Your task to perform on an android device: open app "AliExpress" (install if not already installed) Image 0: 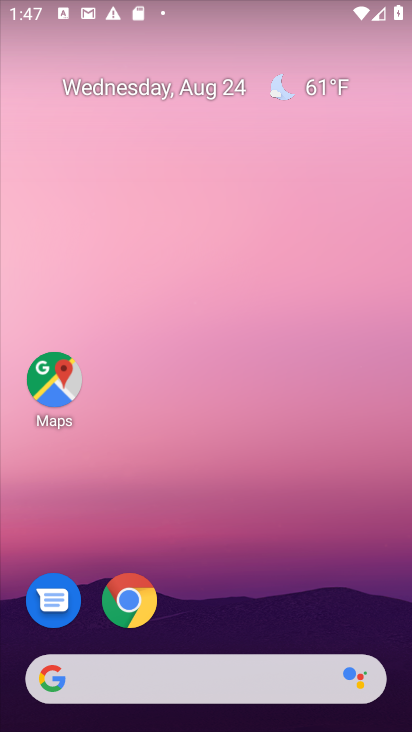
Step 0: drag from (255, 617) to (262, 81)
Your task to perform on an android device: open app "AliExpress" (install if not already installed) Image 1: 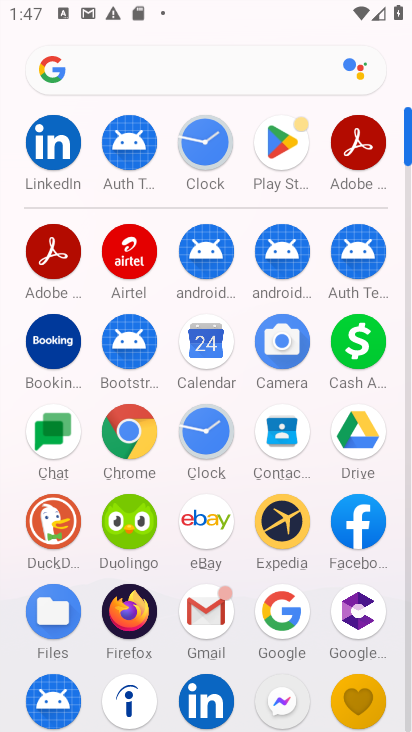
Step 1: click (279, 140)
Your task to perform on an android device: open app "AliExpress" (install if not already installed) Image 2: 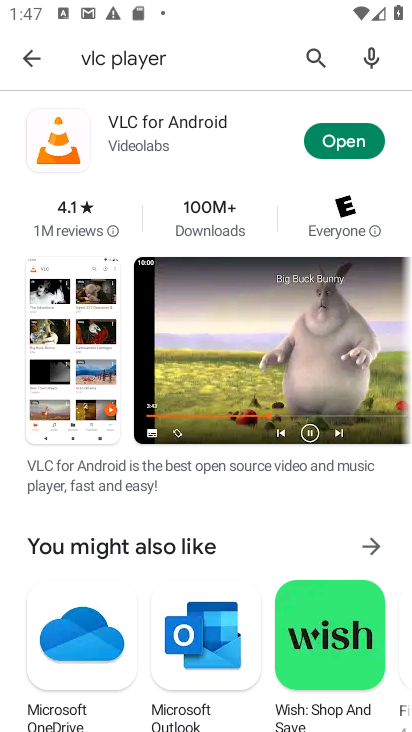
Step 2: click (311, 65)
Your task to perform on an android device: open app "AliExpress" (install if not already installed) Image 3: 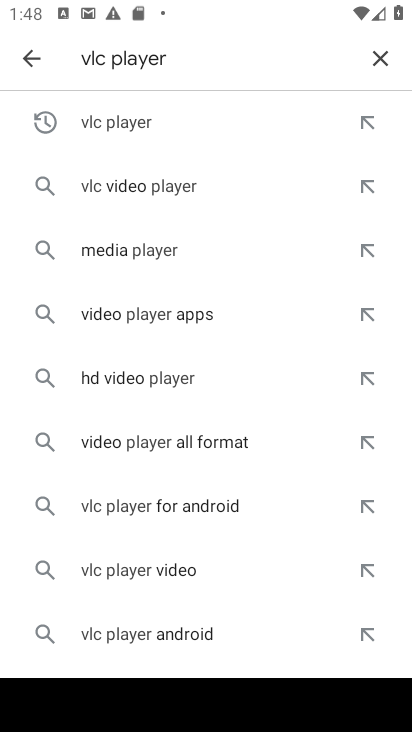
Step 3: click (379, 69)
Your task to perform on an android device: open app "AliExpress" (install if not already installed) Image 4: 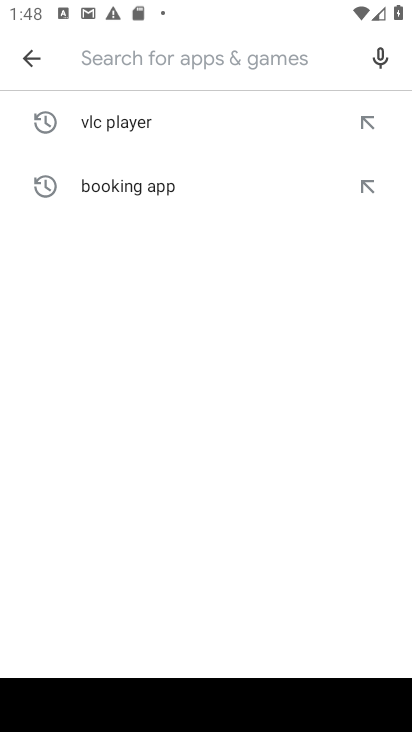
Step 4: type "aliExpress"
Your task to perform on an android device: open app "AliExpress" (install if not already installed) Image 5: 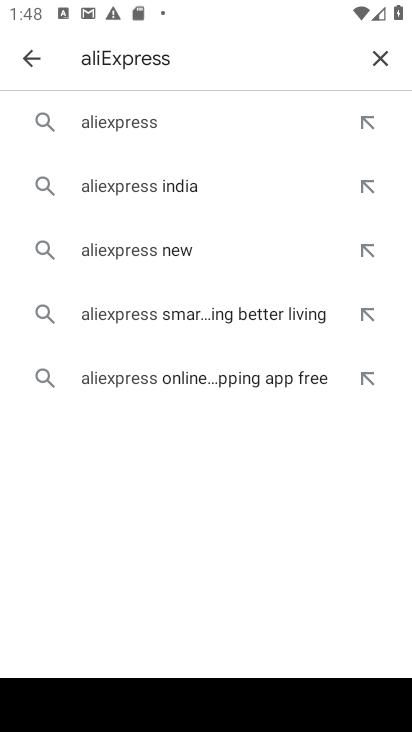
Step 5: click (150, 134)
Your task to perform on an android device: open app "AliExpress" (install if not already installed) Image 6: 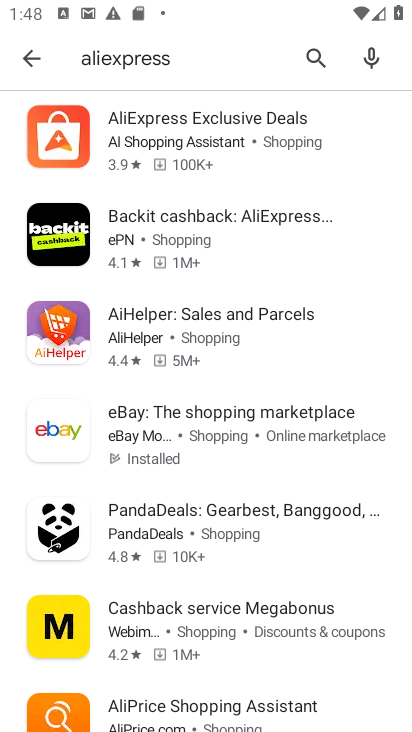
Step 6: click (214, 137)
Your task to perform on an android device: open app "AliExpress" (install if not already installed) Image 7: 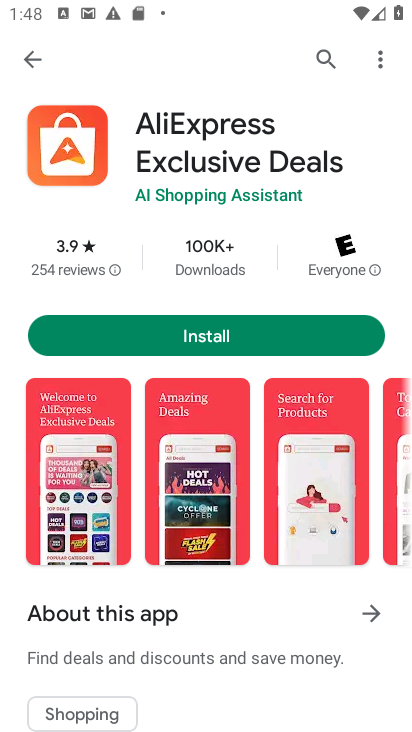
Step 7: click (258, 326)
Your task to perform on an android device: open app "AliExpress" (install if not already installed) Image 8: 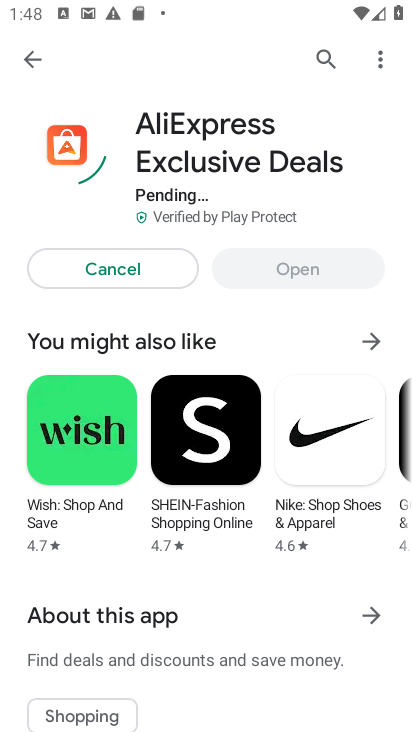
Step 8: task complete